Your task to perform on an android device: read, delete, or share a saved page in the chrome app Image 0: 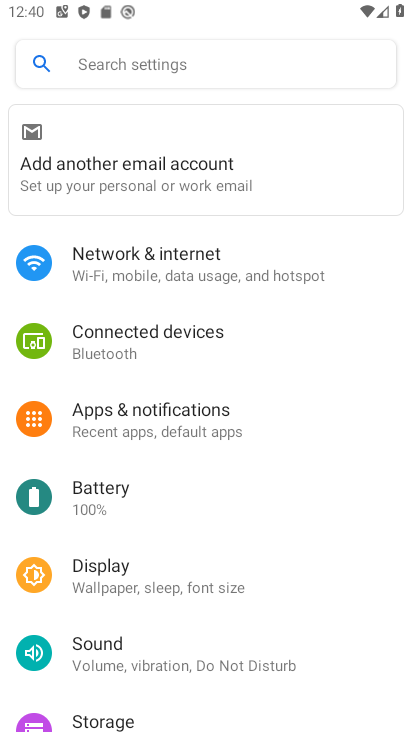
Step 0: task complete